Your task to perform on an android device: empty trash in the gmail app Image 0: 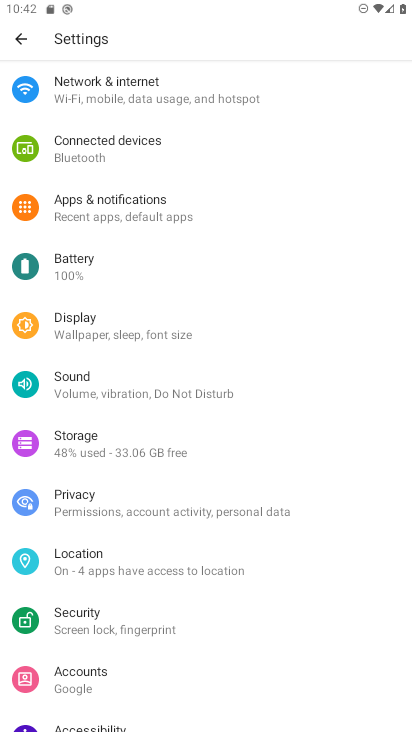
Step 0: press home button
Your task to perform on an android device: empty trash in the gmail app Image 1: 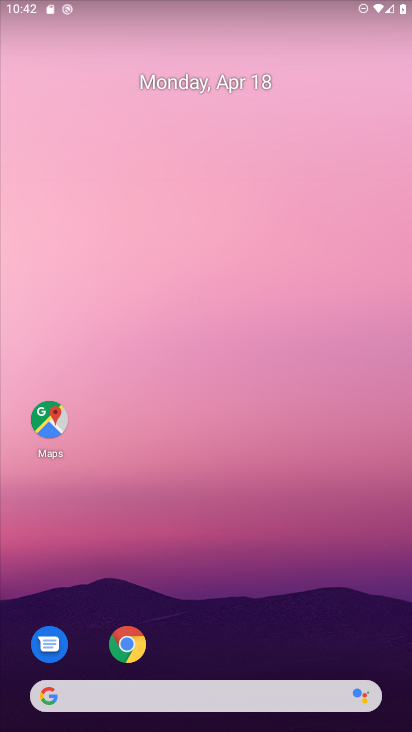
Step 1: drag from (194, 612) to (233, 33)
Your task to perform on an android device: empty trash in the gmail app Image 2: 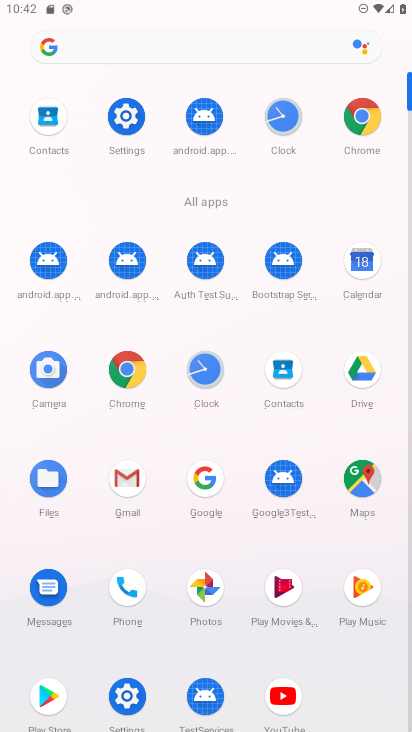
Step 2: click (126, 543)
Your task to perform on an android device: empty trash in the gmail app Image 3: 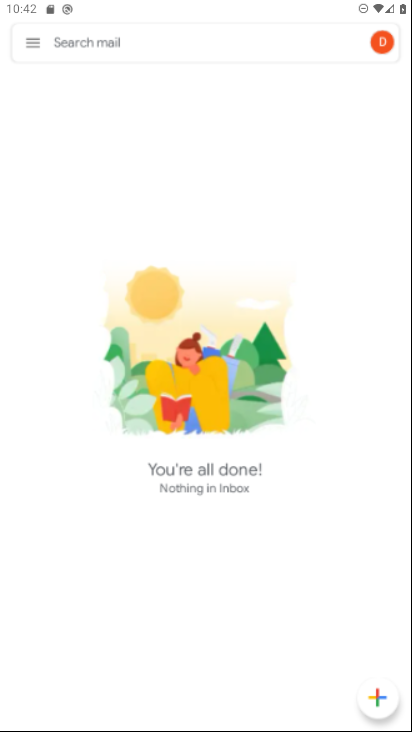
Step 3: click (124, 489)
Your task to perform on an android device: empty trash in the gmail app Image 4: 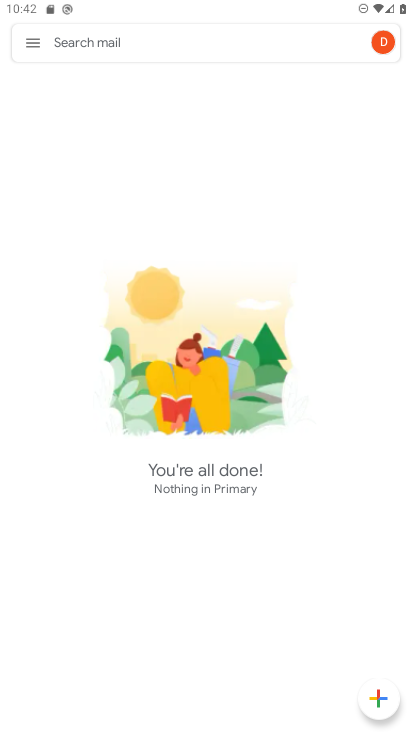
Step 4: click (24, 35)
Your task to perform on an android device: empty trash in the gmail app Image 5: 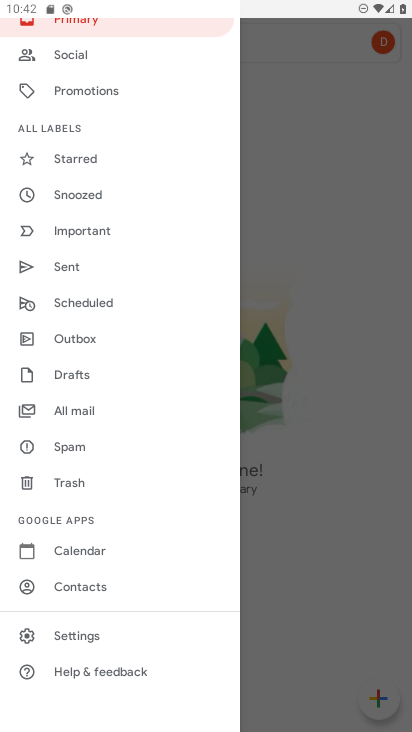
Step 5: click (85, 481)
Your task to perform on an android device: empty trash in the gmail app Image 6: 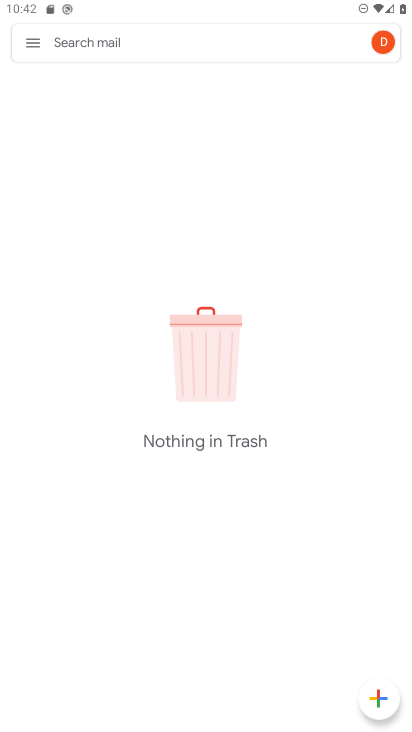
Step 6: task complete